Your task to perform on an android device: Open calendar and show me the third week of next month Image 0: 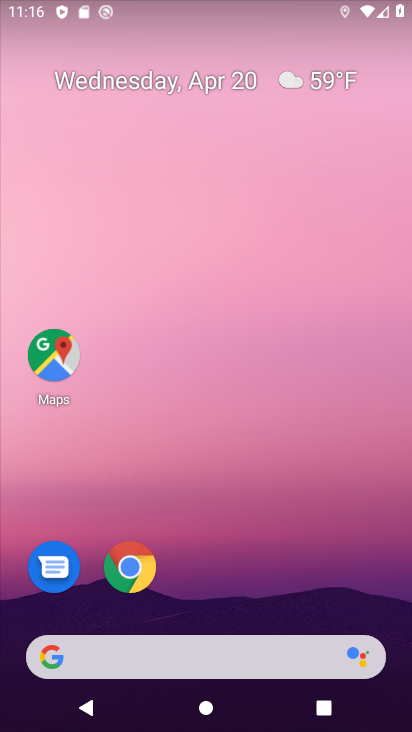
Step 0: drag from (266, 583) to (251, 213)
Your task to perform on an android device: Open calendar and show me the third week of next month Image 1: 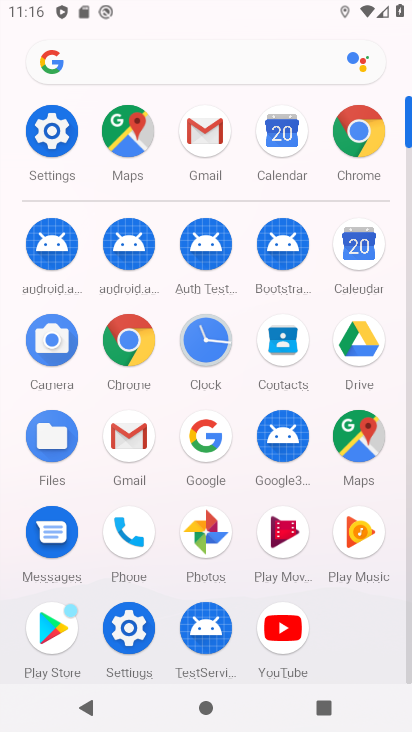
Step 1: click (351, 234)
Your task to perform on an android device: Open calendar and show me the third week of next month Image 2: 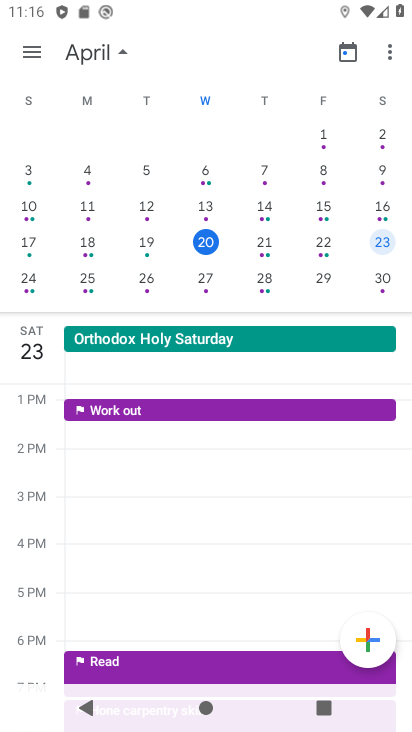
Step 2: drag from (377, 237) to (55, 213)
Your task to perform on an android device: Open calendar and show me the third week of next month Image 3: 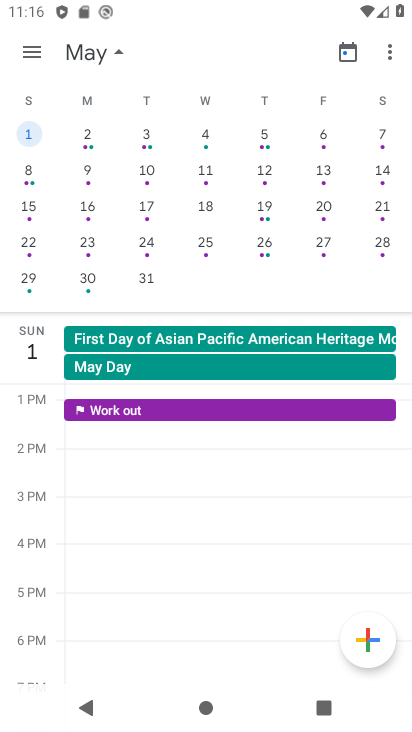
Step 3: click (35, 210)
Your task to perform on an android device: Open calendar and show me the third week of next month Image 4: 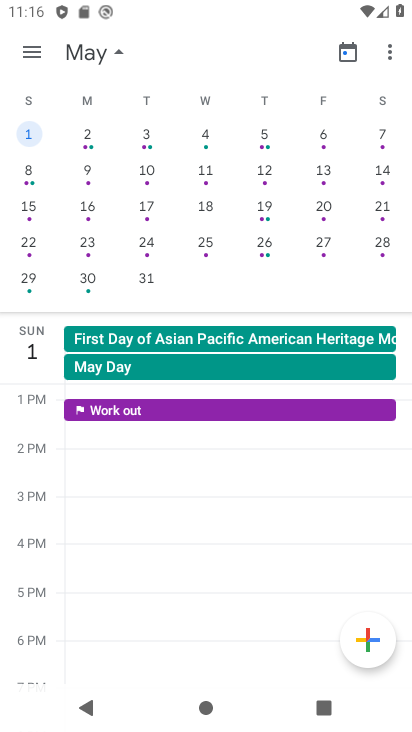
Step 4: click (35, 214)
Your task to perform on an android device: Open calendar and show me the third week of next month Image 5: 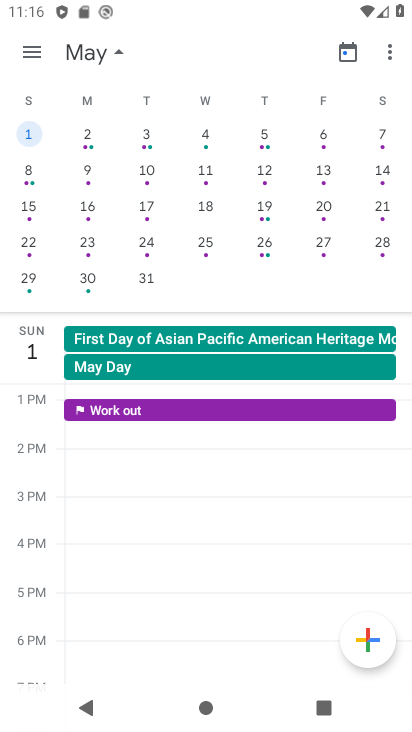
Step 5: click (26, 207)
Your task to perform on an android device: Open calendar and show me the third week of next month Image 6: 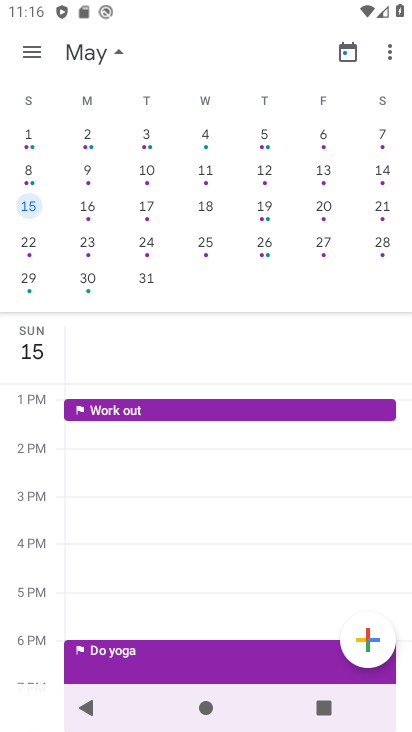
Step 6: task complete